Your task to perform on an android device: Open Amazon Image 0: 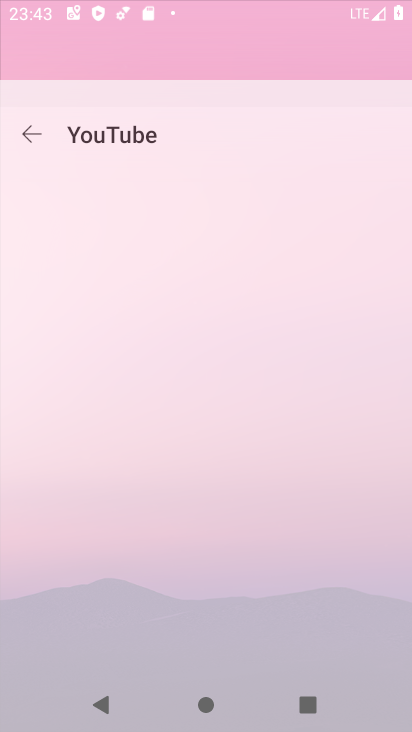
Step 0: click (160, 120)
Your task to perform on an android device: Open Amazon Image 1: 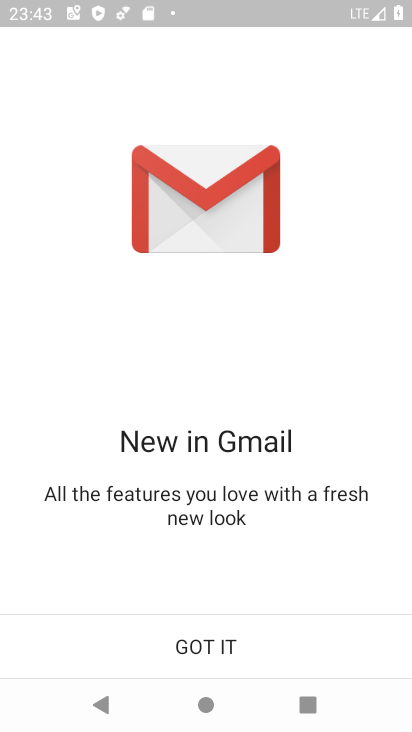
Step 1: click (209, 638)
Your task to perform on an android device: Open Amazon Image 2: 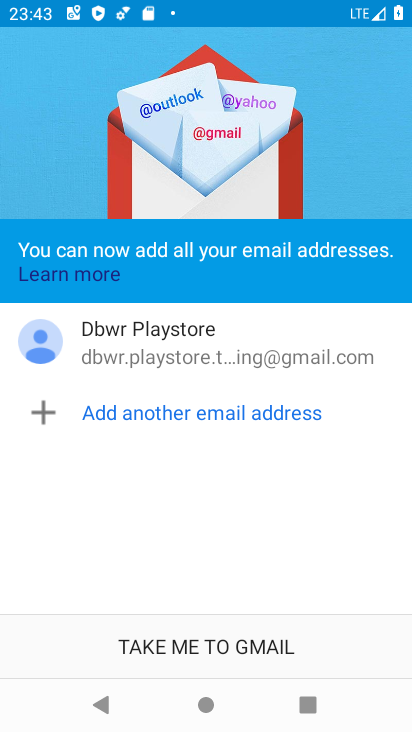
Step 2: press home button
Your task to perform on an android device: Open Amazon Image 3: 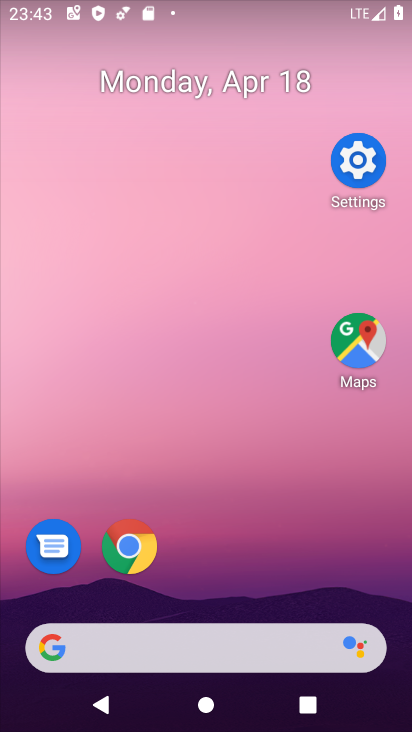
Step 3: drag from (332, 602) to (89, 121)
Your task to perform on an android device: Open Amazon Image 4: 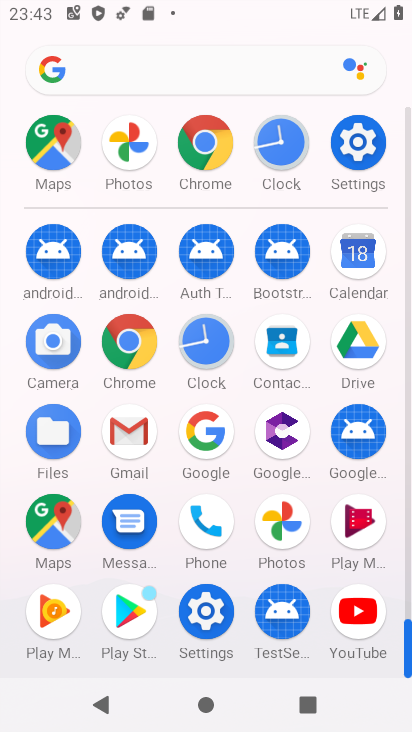
Step 4: click (196, 148)
Your task to perform on an android device: Open Amazon Image 5: 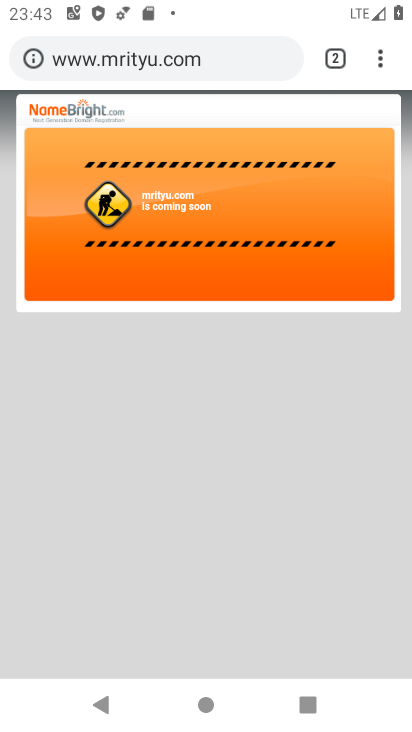
Step 5: press back button
Your task to perform on an android device: Open Amazon Image 6: 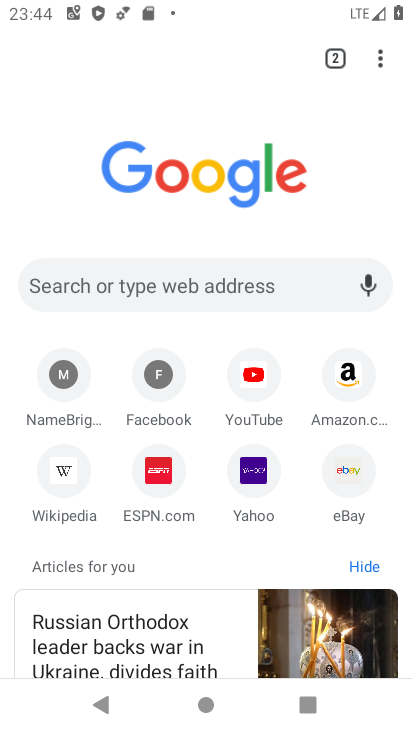
Step 6: click (348, 375)
Your task to perform on an android device: Open Amazon Image 7: 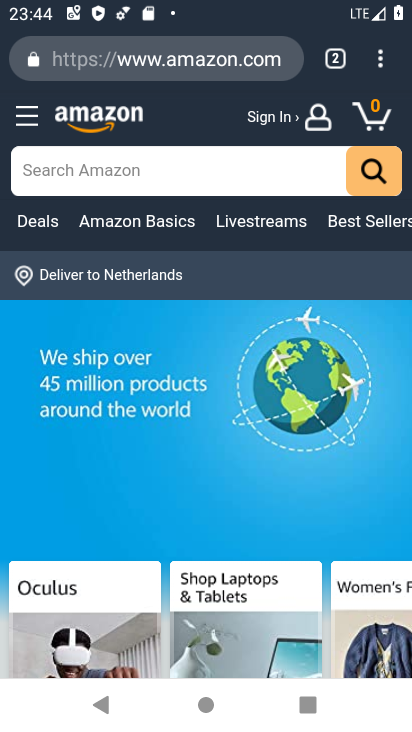
Step 7: task complete